Your task to perform on an android device: Go to CNN.com Image 0: 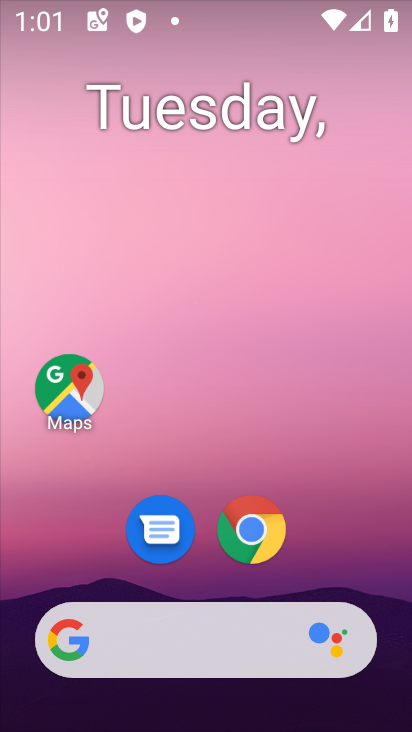
Step 0: click (250, 525)
Your task to perform on an android device: Go to CNN.com Image 1: 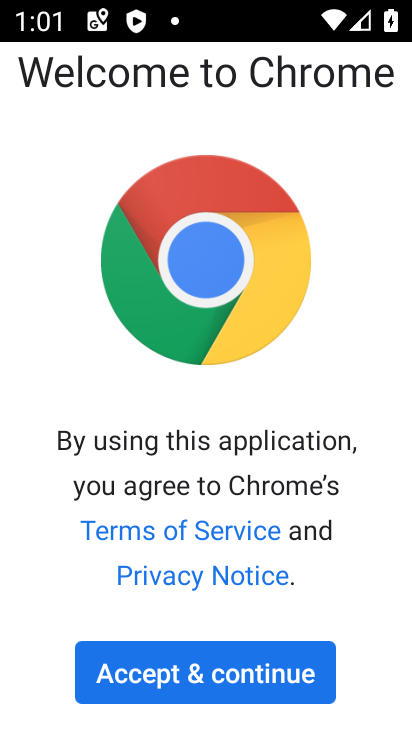
Step 1: click (257, 674)
Your task to perform on an android device: Go to CNN.com Image 2: 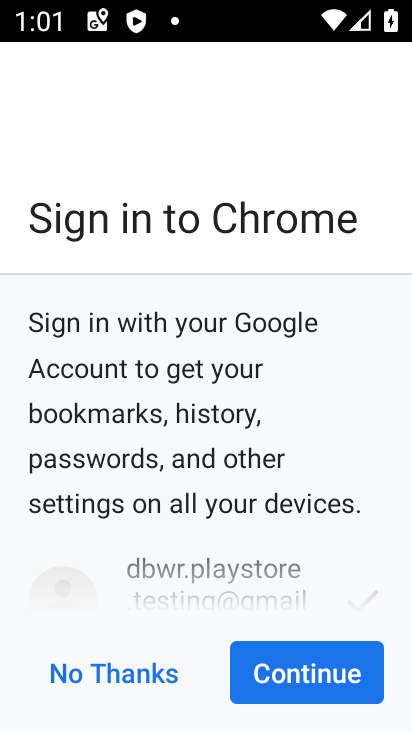
Step 2: click (353, 683)
Your task to perform on an android device: Go to CNN.com Image 3: 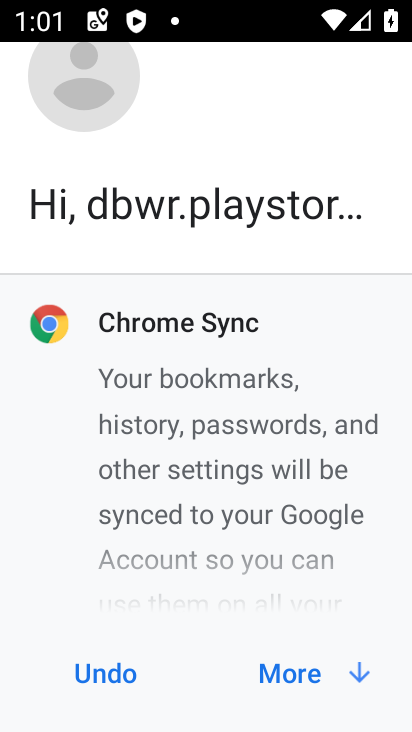
Step 3: click (335, 681)
Your task to perform on an android device: Go to CNN.com Image 4: 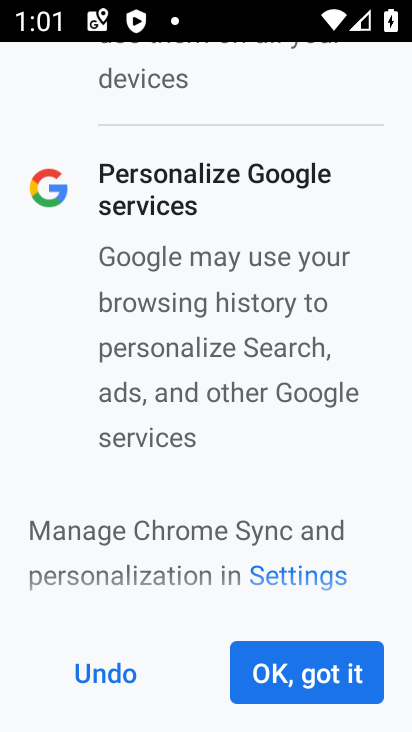
Step 4: click (348, 676)
Your task to perform on an android device: Go to CNN.com Image 5: 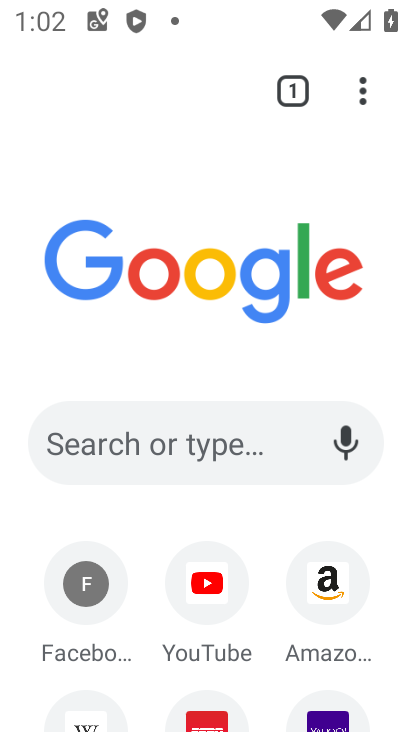
Step 5: click (215, 462)
Your task to perform on an android device: Go to CNN.com Image 6: 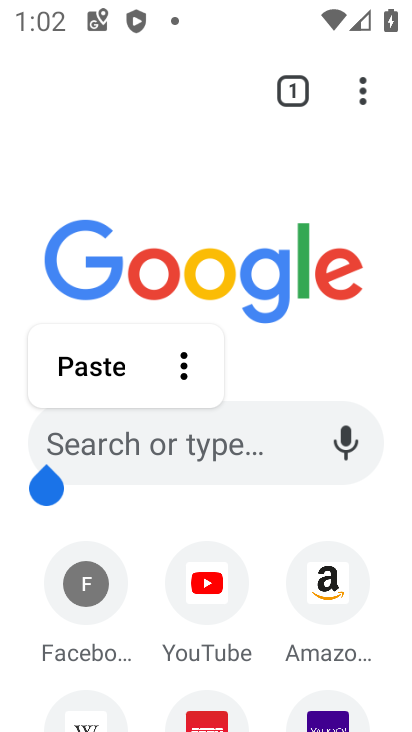
Step 6: click (234, 473)
Your task to perform on an android device: Go to CNN.com Image 7: 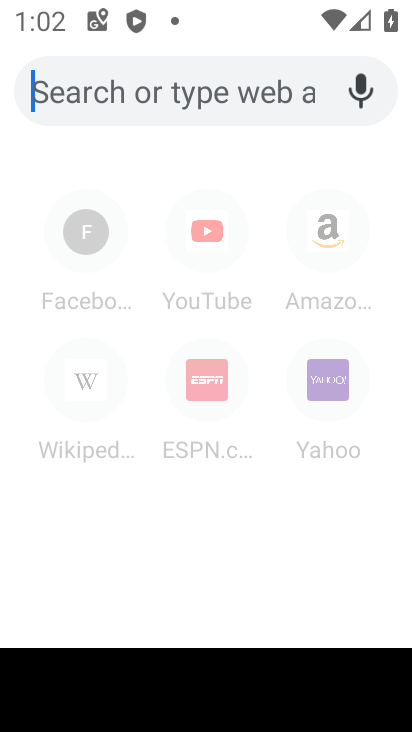
Step 7: type "CNN.com"
Your task to perform on an android device: Go to CNN.com Image 8: 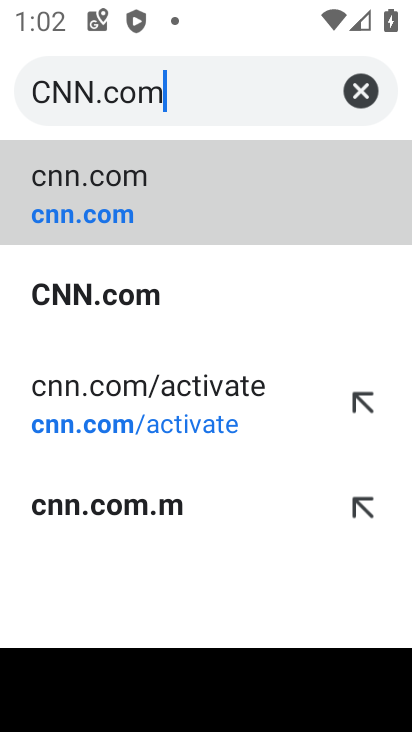
Step 8: click (192, 293)
Your task to perform on an android device: Go to CNN.com Image 9: 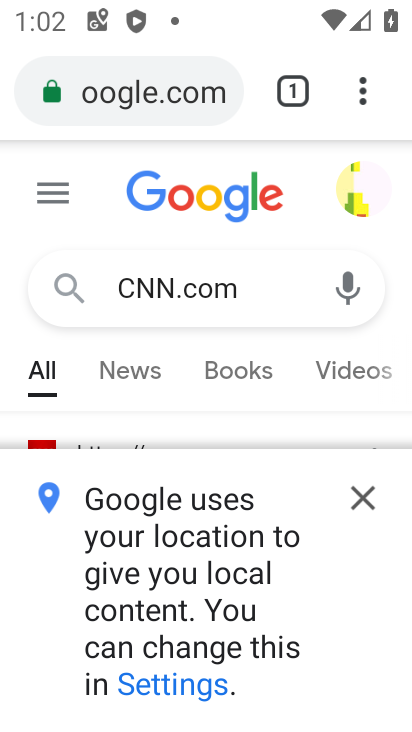
Step 9: click (360, 497)
Your task to perform on an android device: Go to CNN.com Image 10: 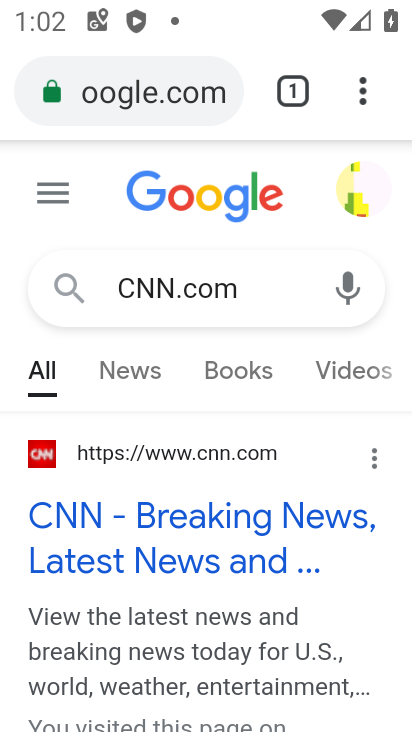
Step 10: click (281, 526)
Your task to perform on an android device: Go to CNN.com Image 11: 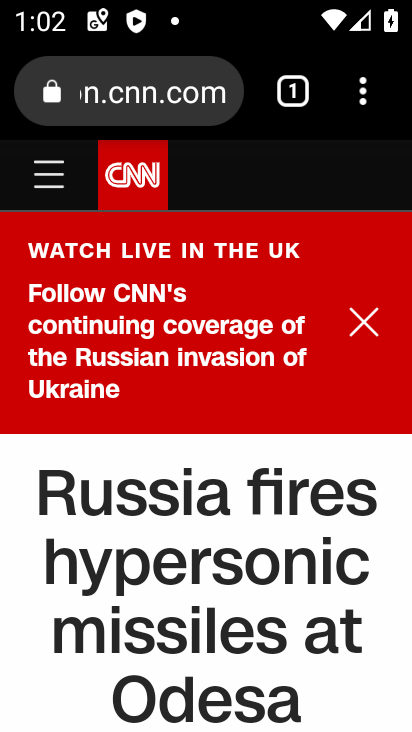
Step 11: task complete